Your task to perform on an android device: Open Android settings Image 0: 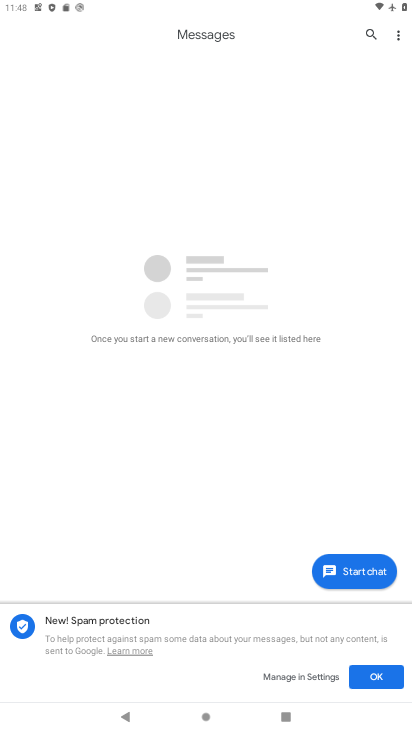
Step 0: press back button
Your task to perform on an android device: Open Android settings Image 1: 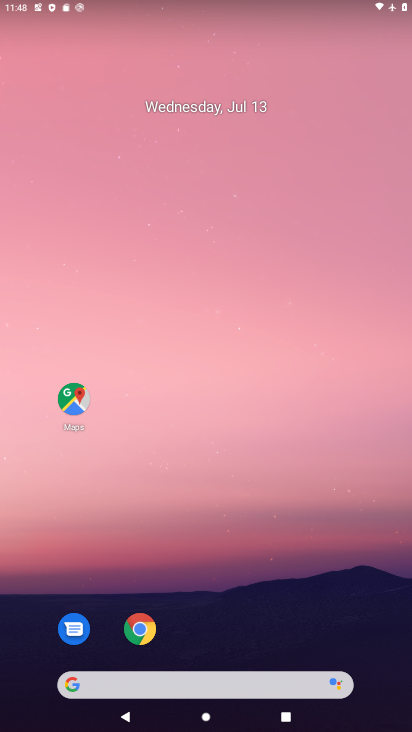
Step 1: drag from (268, 689) to (211, 229)
Your task to perform on an android device: Open Android settings Image 2: 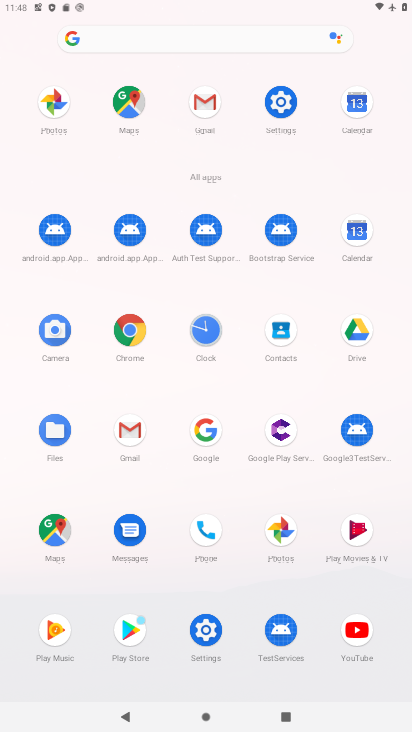
Step 2: click (288, 102)
Your task to perform on an android device: Open Android settings Image 3: 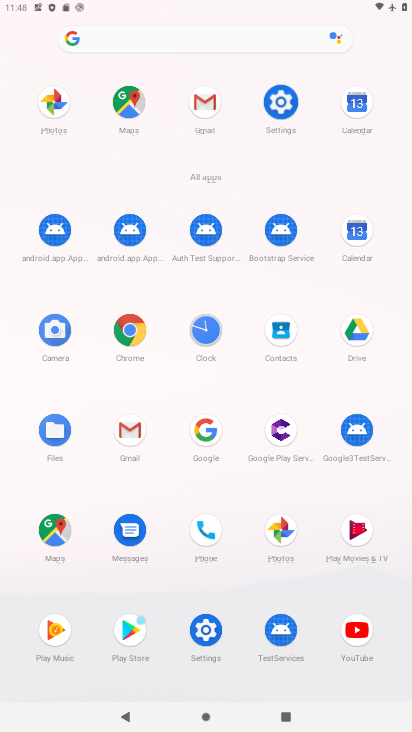
Step 3: click (288, 102)
Your task to perform on an android device: Open Android settings Image 4: 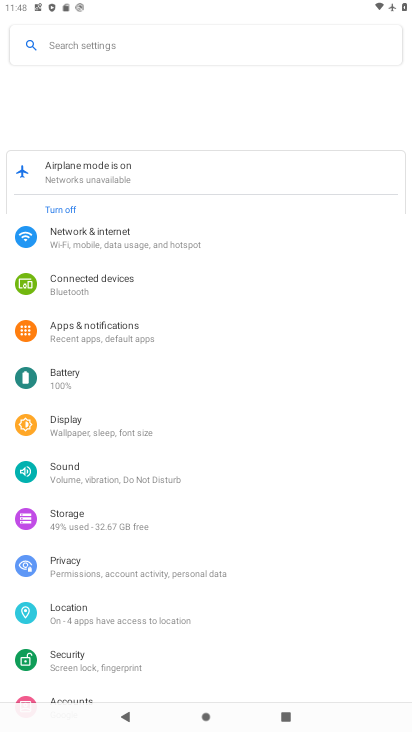
Step 4: click (288, 102)
Your task to perform on an android device: Open Android settings Image 5: 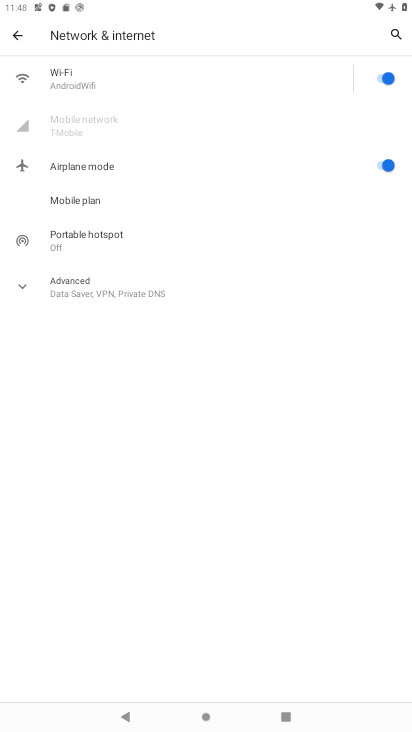
Step 5: click (15, 38)
Your task to perform on an android device: Open Android settings Image 6: 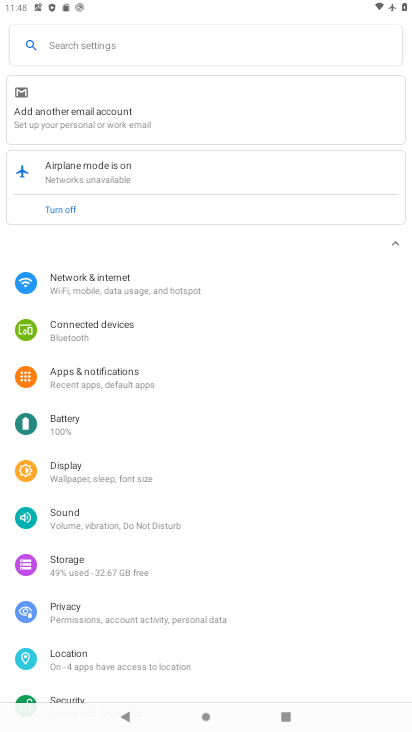
Step 6: drag from (102, 533) to (146, 315)
Your task to perform on an android device: Open Android settings Image 7: 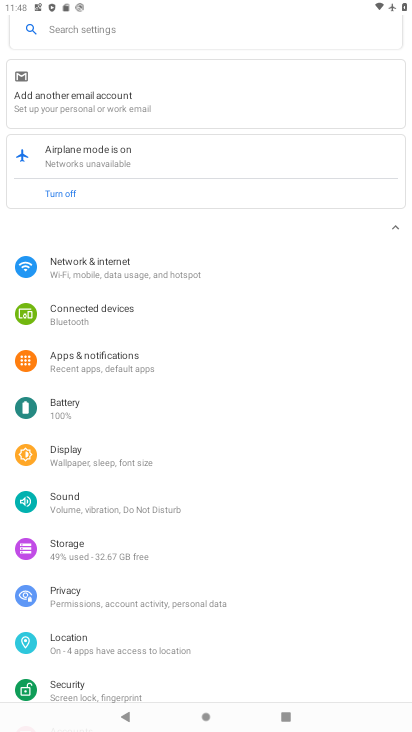
Step 7: drag from (77, 675) to (38, 136)
Your task to perform on an android device: Open Android settings Image 8: 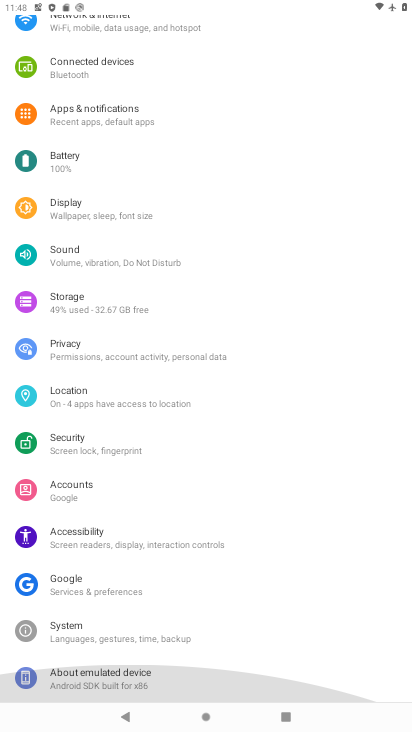
Step 8: drag from (79, 487) to (81, 132)
Your task to perform on an android device: Open Android settings Image 9: 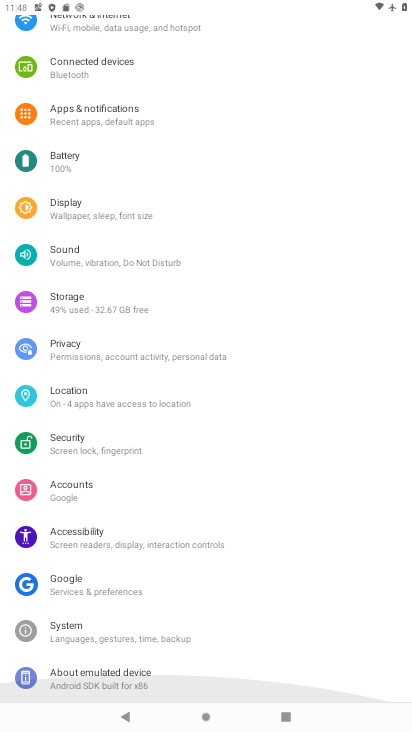
Step 9: drag from (142, 343) to (132, 7)
Your task to perform on an android device: Open Android settings Image 10: 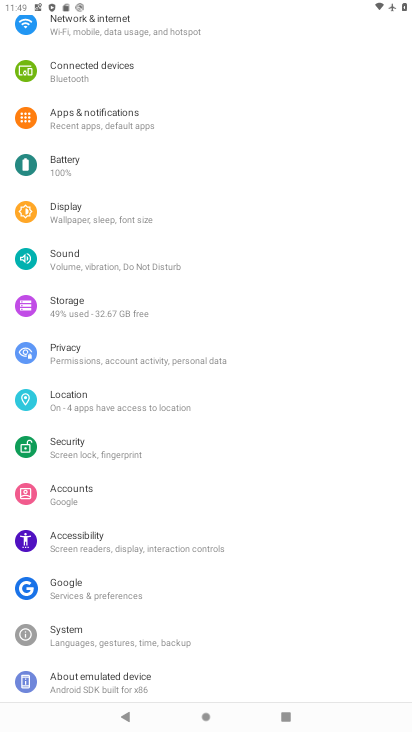
Step 10: click (90, 669)
Your task to perform on an android device: Open Android settings Image 11: 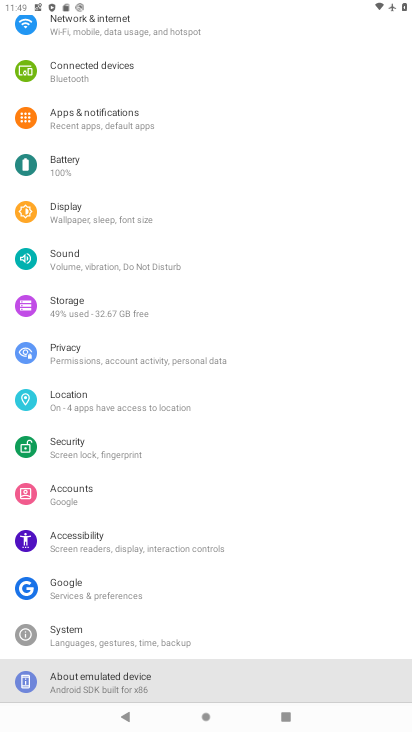
Step 11: click (90, 673)
Your task to perform on an android device: Open Android settings Image 12: 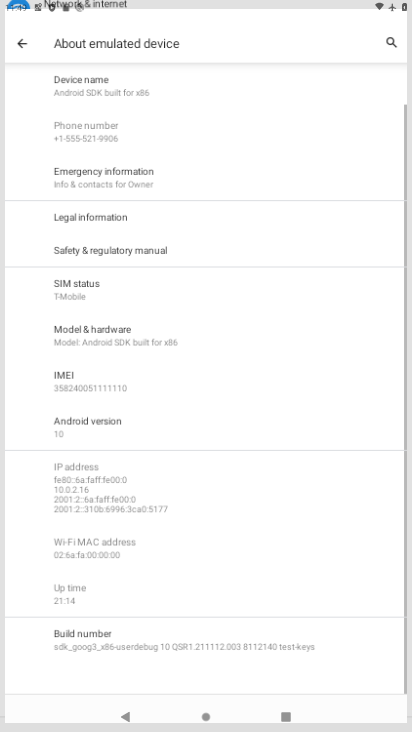
Step 12: task complete